Your task to perform on an android device: make emails show in primary in the gmail app Image 0: 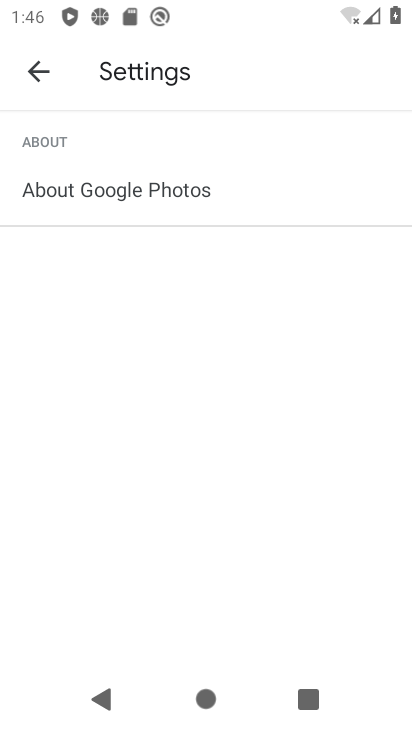
Step 0: press home button
Your task to perform on an android device: make emails show in primary in the gmail app Image 1: 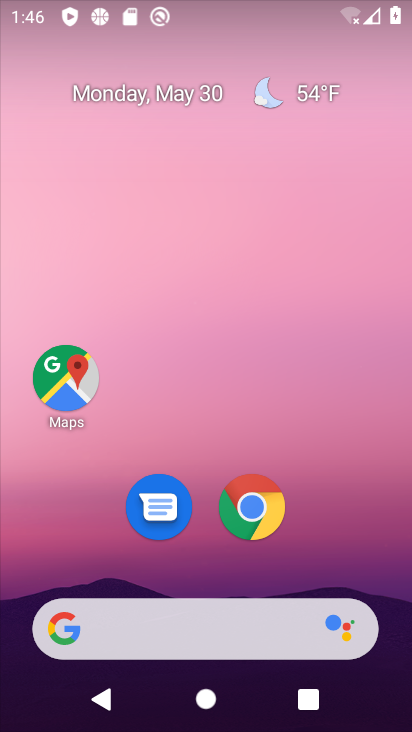
Step 1: drag from (402, 611) to (193, 34)
Your task to perform on an android device: make emails show in primary in the gmail app Image 2: 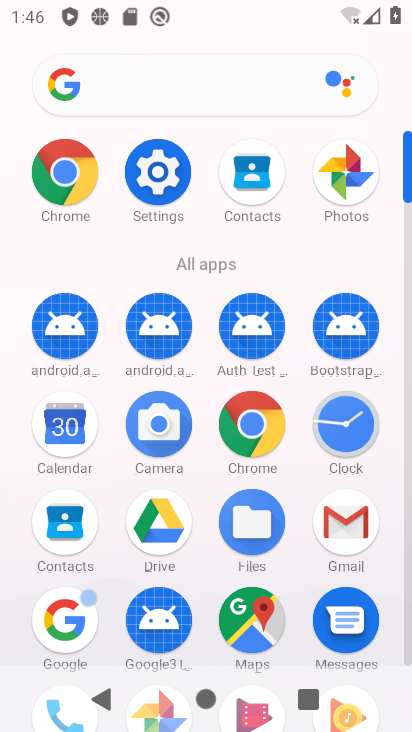
Step 2: click (357, 540)
Your task to perform on an android device: make emails show in primary in the gmail app Image 3: 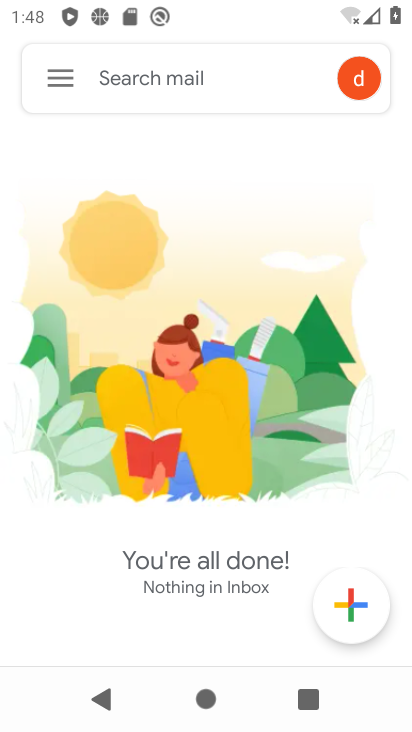
Step 3: task complete